Your task to perform on an android device: toggle show notifications on the lock screen Image 0: 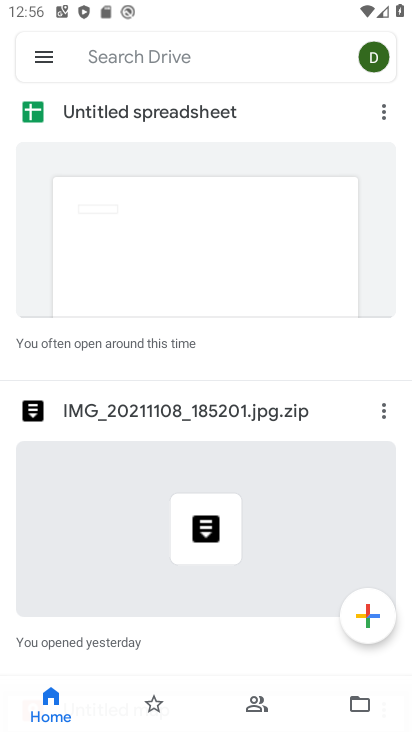
Step 0: task complete